Your task to perform on an android device: change timer sound Image 0: 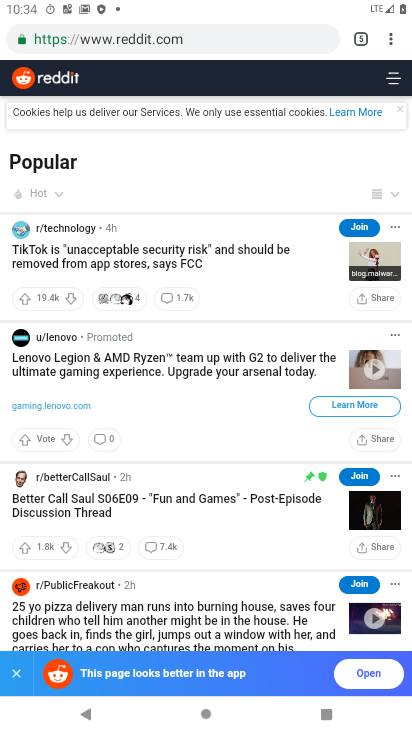
Step 0: press home button
Your task to perform on an android device: change timer sound Image 1: 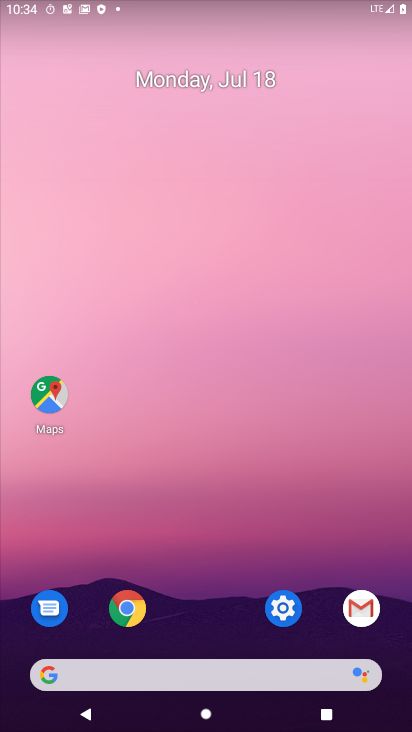
Step 1: click (289, 608)
Your task to perform on an android device: change timer sound Image 2: 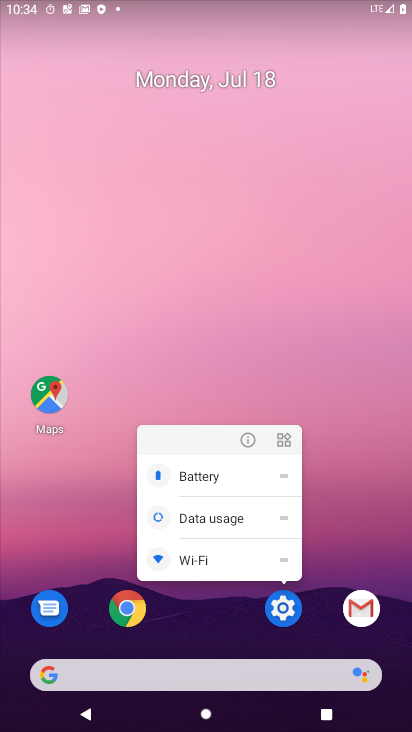
Step 2: click (287, 602)
Your task to perform on an android device: change timer sound Image 3: 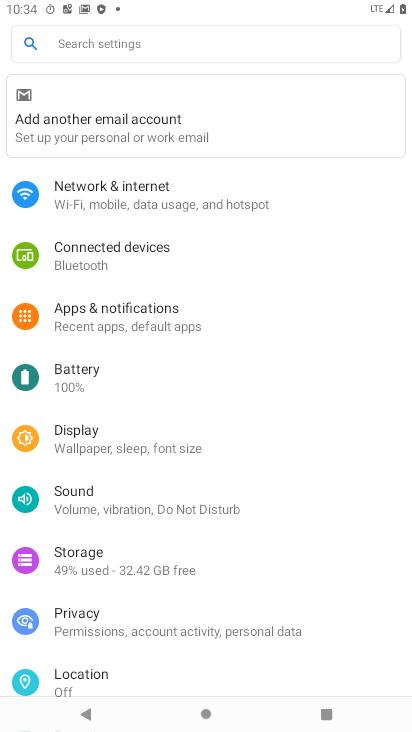
Step 3: press home button
Your task to perform on an android device: change timer sound Image 4: 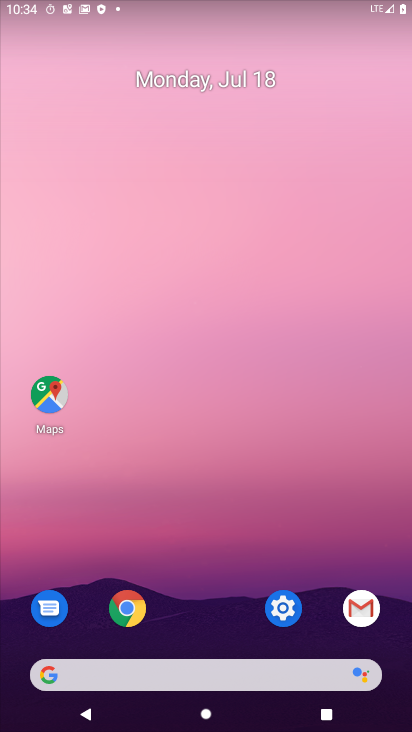
Step 4: drag from (273, 673) to (310, 115)
Your task to perform on an android device: change timer sound Image 5: 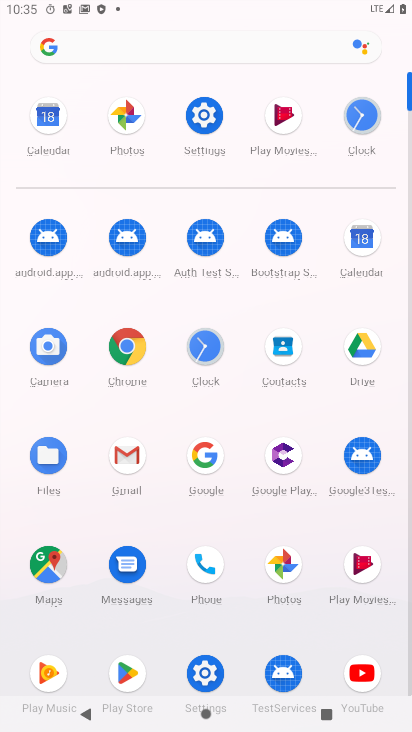
Step 5: click (218, 351)
Your task to perform on an android device: change timer sound Image 6: 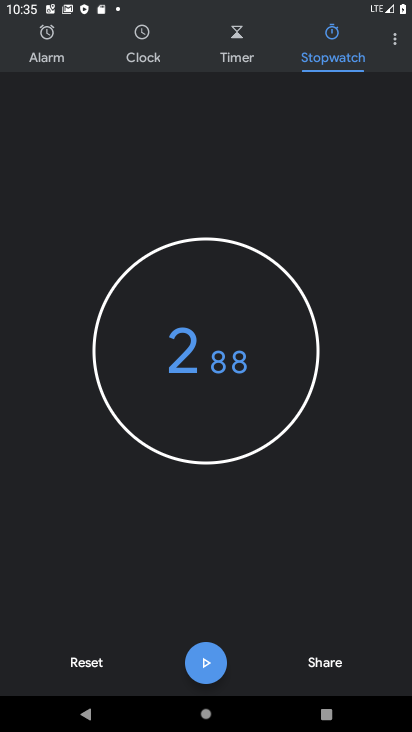
Step 6: click (393, 39)
Your task to perform on an android device: change timer sound Image 7: 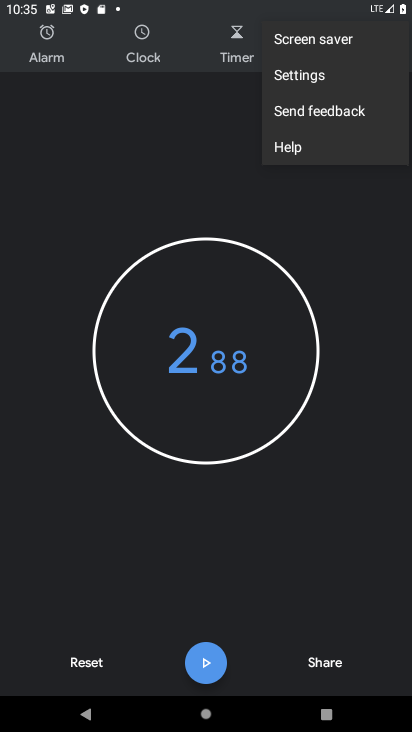
Step 7: click (322, 81)
Your task to perform on an android device: change timer sound Image 8: 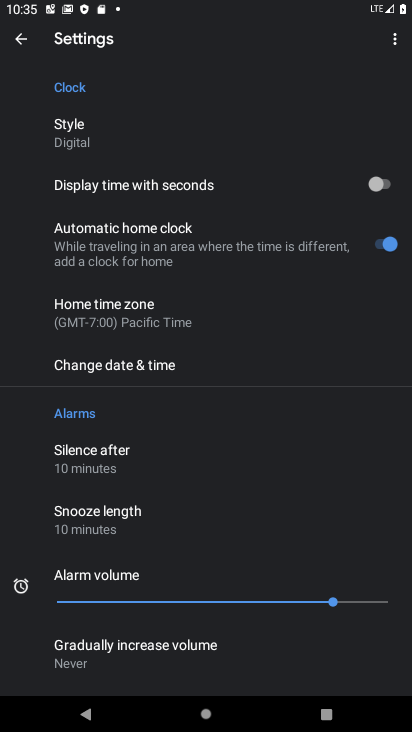
Step 8: drag from (166, 531) to (195, 181)
Your task to perform on an android device: change timer sound Image 9: 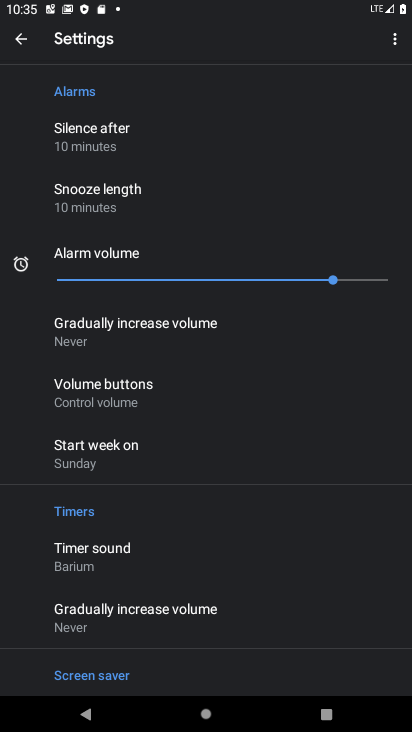
Step 9: click (148, 554)
Your task to perform on an android device: change timer sound Image 10: 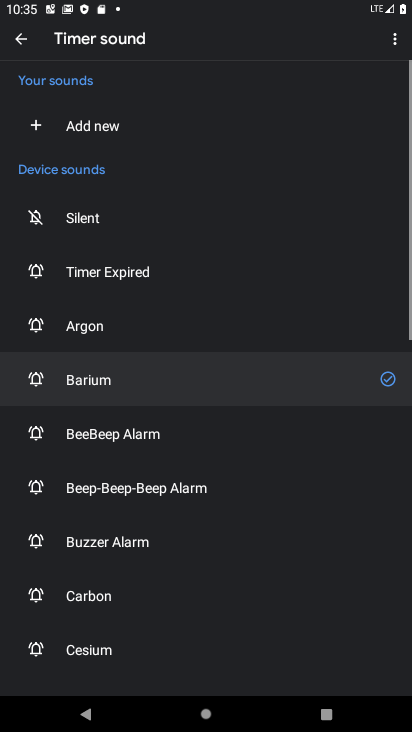
Step 10: click (125, 591)
Your task to perform on an android device: change timer sound Image 11: 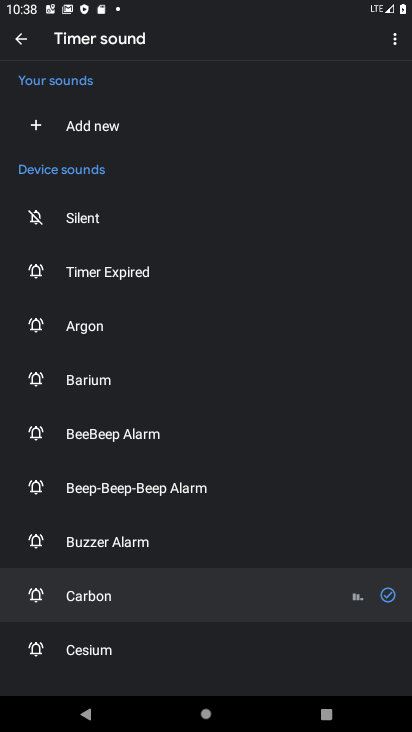
Step 11: task complete